Your task to perform on an android device: change notification settings in the gmail app Image 0: 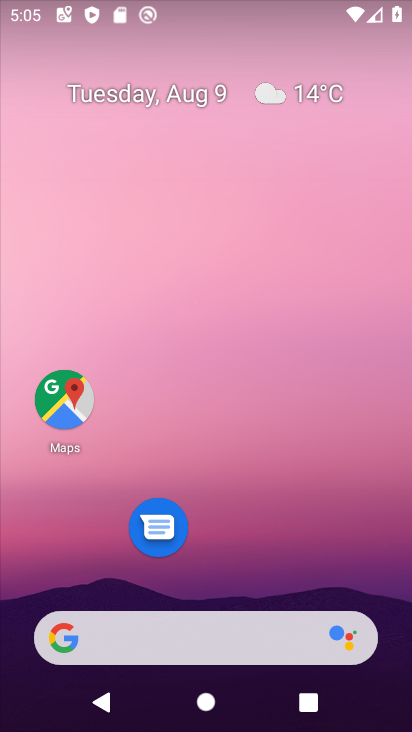
Step 0: drag from (245, 570) to (180, 63)
Your task to perform on an android device: change notification settings in the gmail app Image 1: 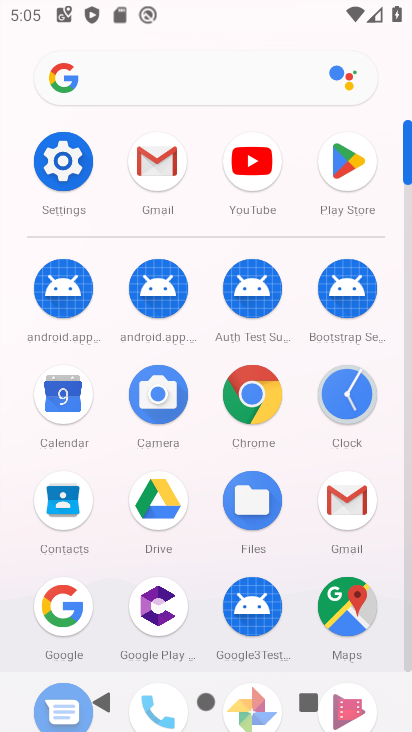
Step 1: click (81, 151)
Your task to perform on an android device: change notification settings in the gmail app Image 2: 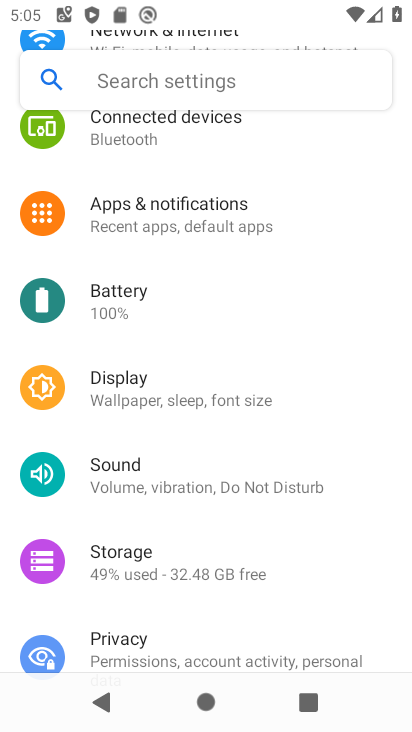
Step 2: drag from (217, 164) to (275, 592)
Your task to perform on an android device: change notification settings in the gmail app Image 3: 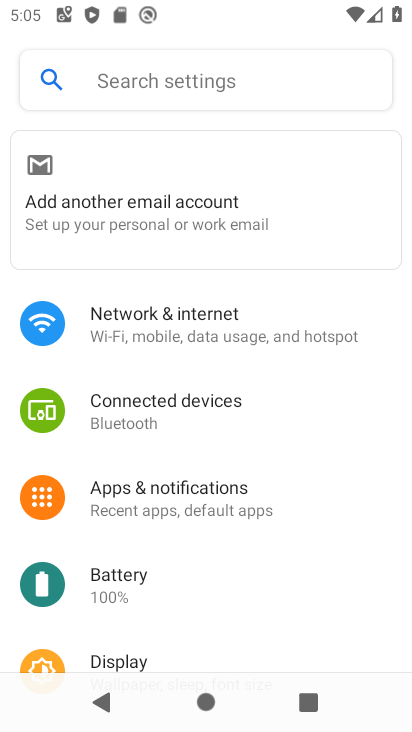
Step 3: drag from (250, 152) to (297, 498)
Your task to perform on an android device: change notification settings in the gmail app Image 4: 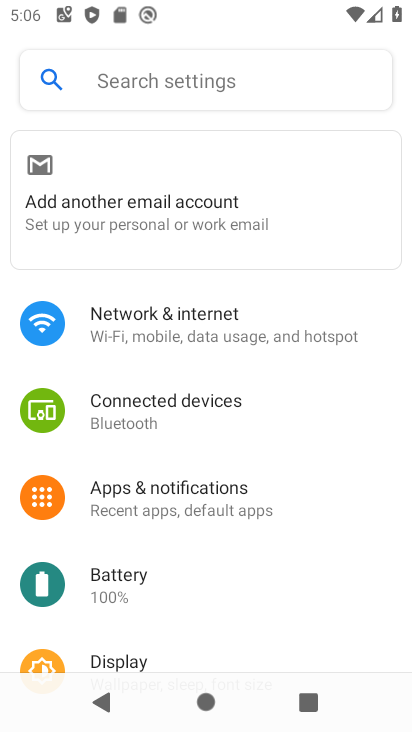
Step 4: click (167, 487)
Your task to perform on an android device: change notification settings in the gmail app Image 5: 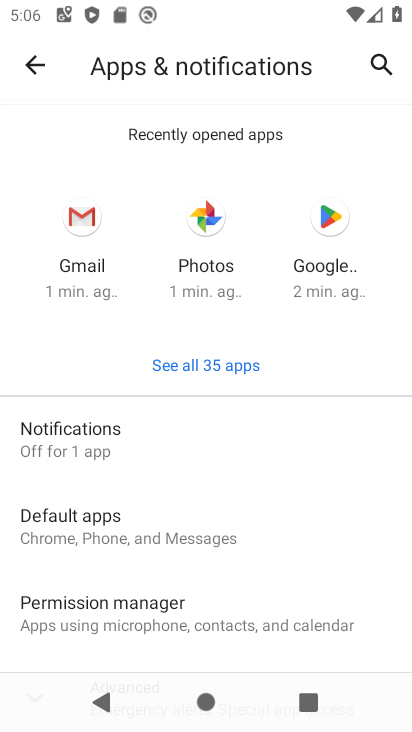
Step 5: click (59, 218)
Your task to perform on an android device: change notification settings in the gmail app Image 6: 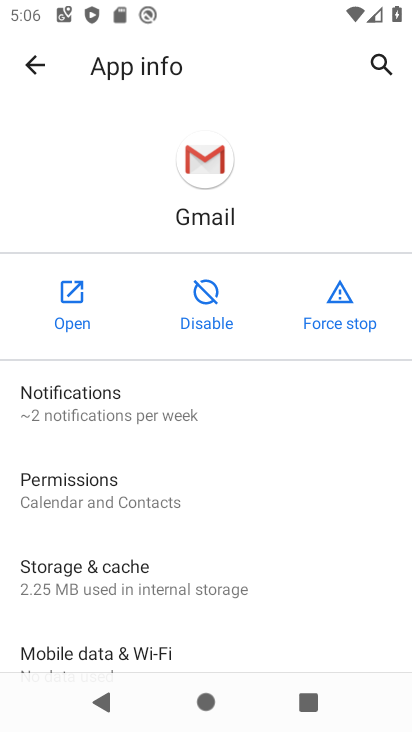
Step 6: click (199, 419)
Your task to perform on an android device: change notification settings in the gmail app Image 7: 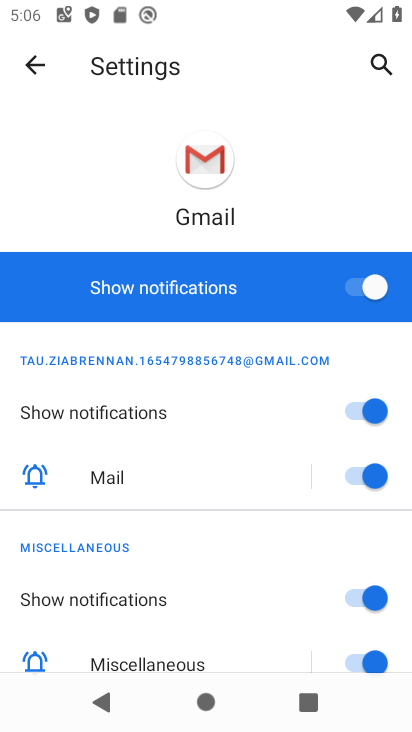
Step 7: click (189, 385)
Your task to perform on an android device: change notification settings in the gmail app Image 8: 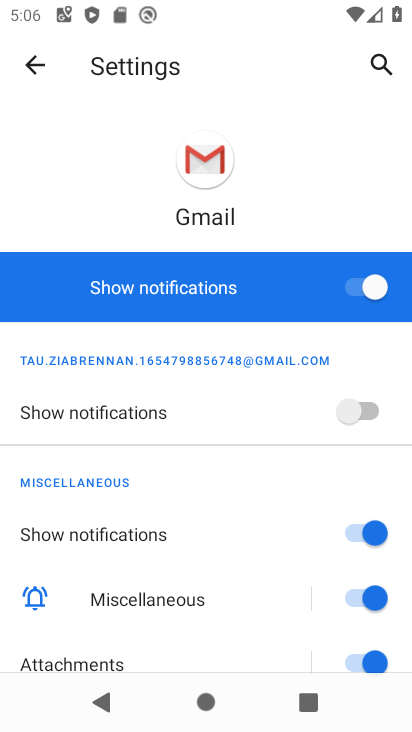
Step 8: click (365, 289)
Your task to perform on an android device: change notification settings in the gmail app Image 9: 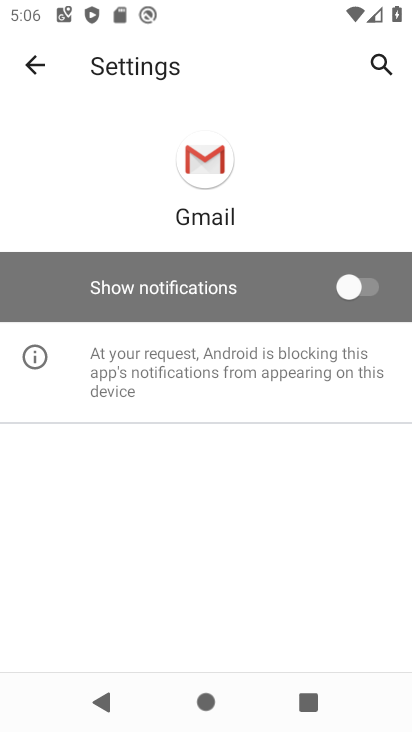
Step 9: task complete